Your task to perform on an android device: Open Android settings Image 0: 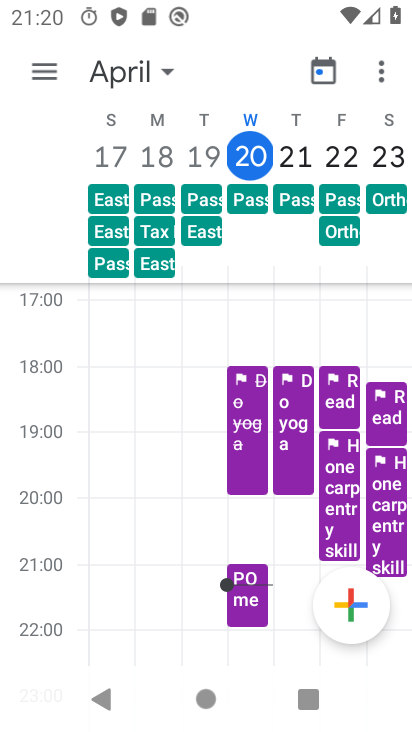
Step 0: press home button
Your task to perform on an android device: Open Android settings Image 1: 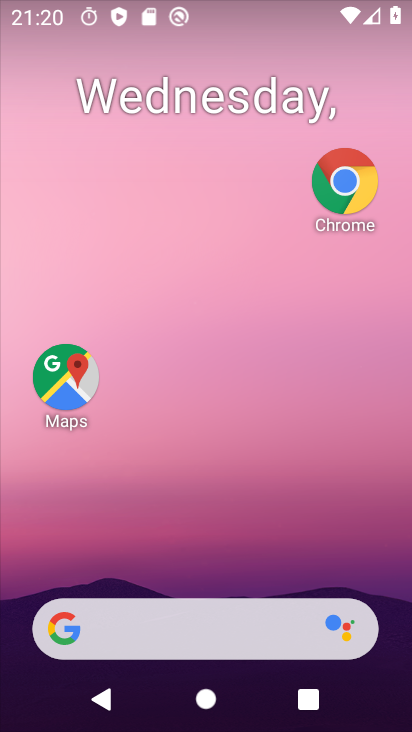
Step 1: drag from (223, 682) to (332, 179)
Your task to perform on an android device: Open Android settings Image 2: 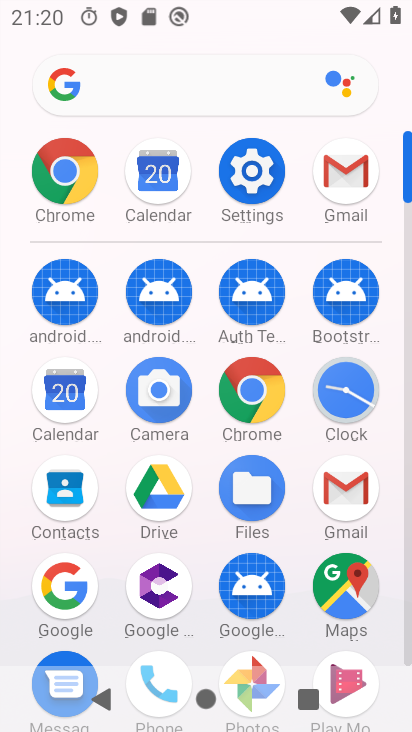
Step 2: click (250, 190)
Your task to perform on an android device: Open Android settings Image 3: 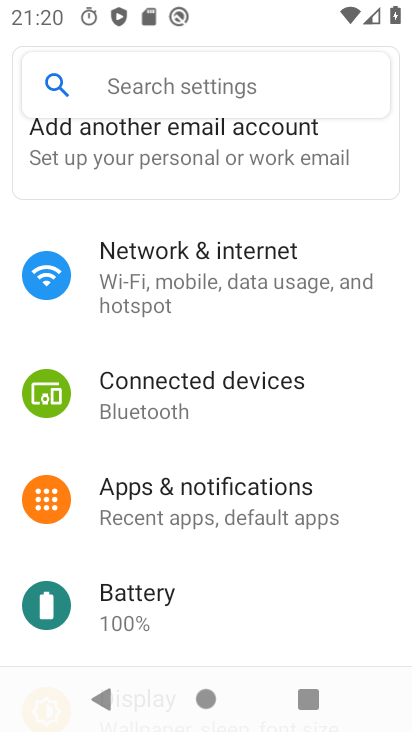
Step 3: click (200, 69)
Your task to perform on an android device: Open Android settings Image 4: 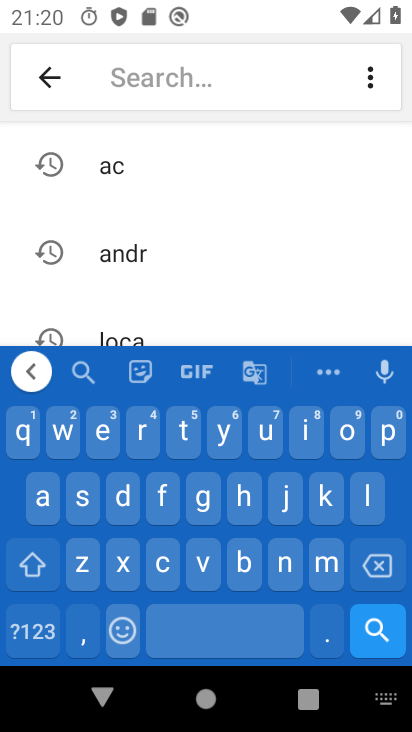
Step 4: click (130, 271)
Your task to perform on an android device: Open Android settings Image 5: 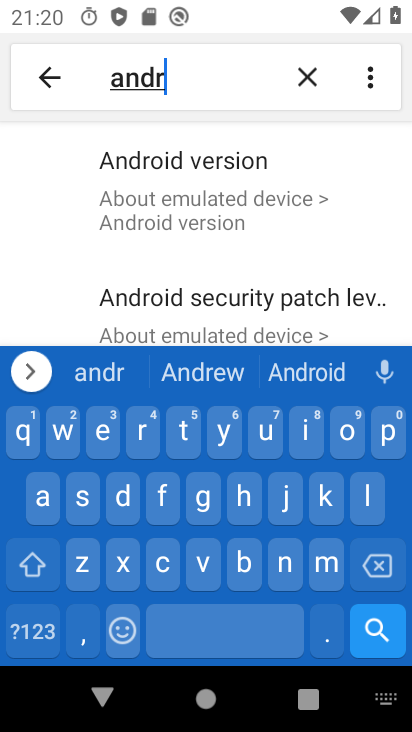
Step 5: click (184, 190)
Your task to perform on an android device: Open Android settings Image 6: 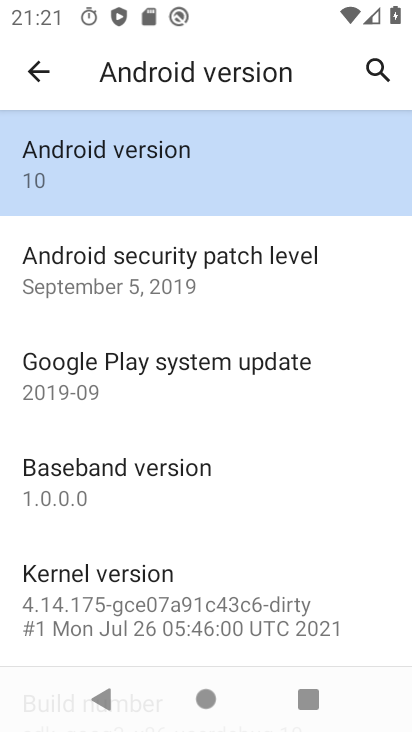
Step 6: task complete